Your task to perform on an android device: Go to ESPN.com Image 0: 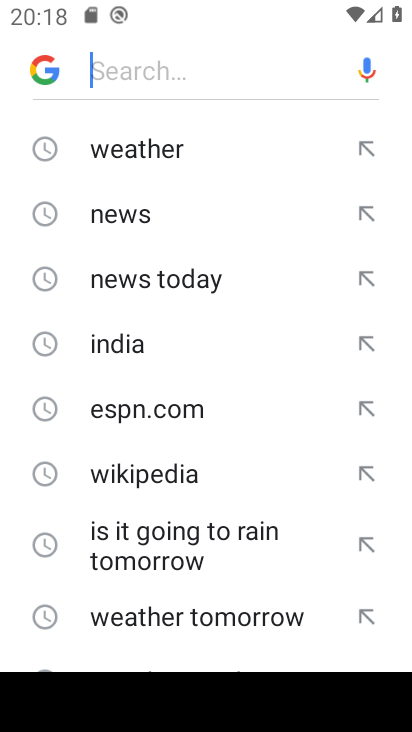
Step 0: type "espn.com"
Your task to perform on an android device: Go to ESPN.com Image 1: 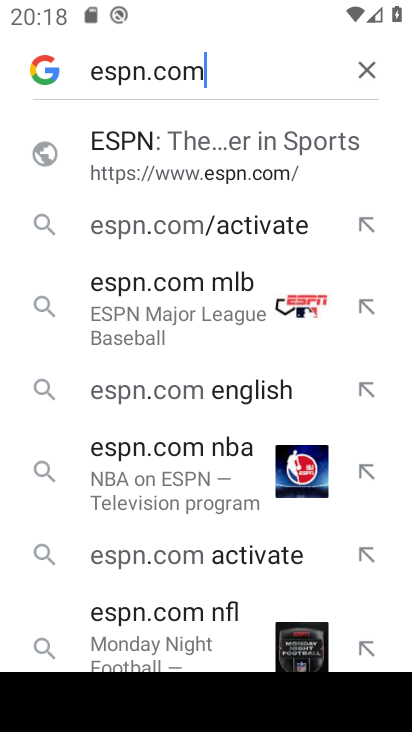
Step 1: click (288, 145)
Your task to perform on an android device: Go to ESPN.com Image 2: 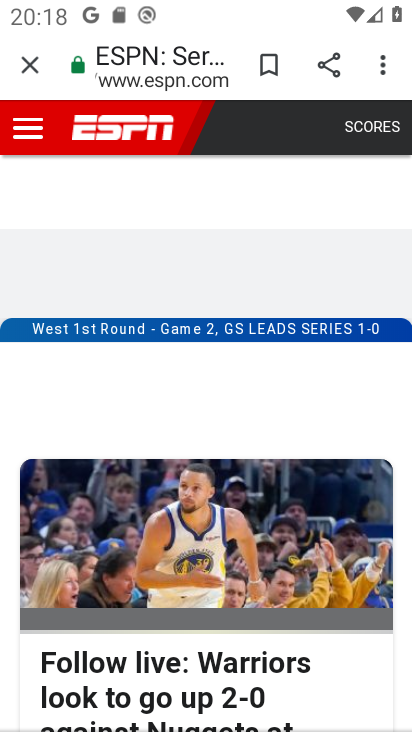
Step 2: task complete